Your task to perform on an android device: Go to eBay Image 0: 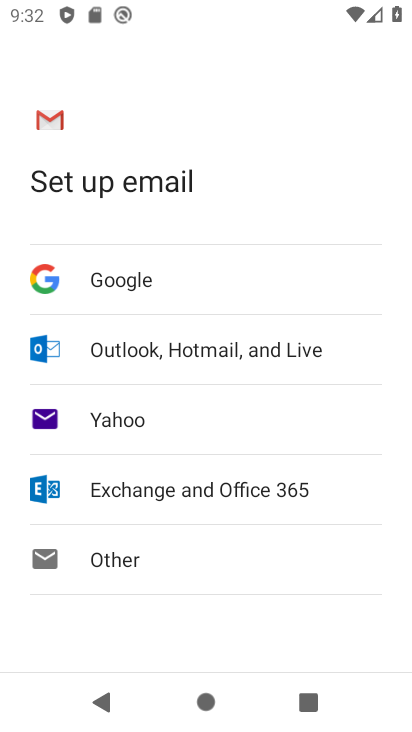
Step 0: press back button
Your task to perform on an android device: Go to eBay Image 1: 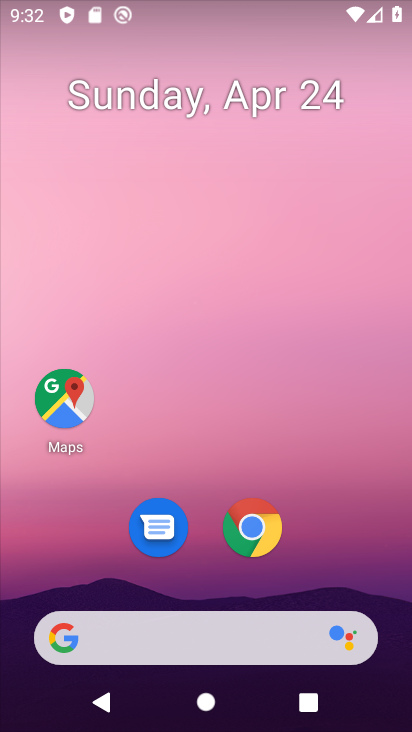
Step 1: click (176, 639)
Your task to perform on an android device: Go to eBay Image 2: 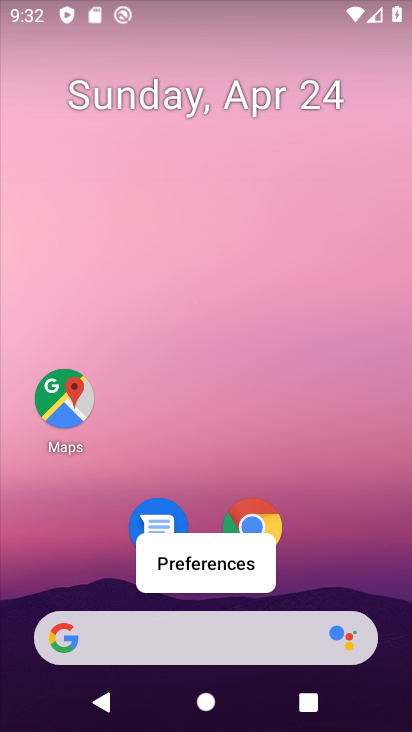
Step 2: click (132, 641)
Your task to perform on an android device: Go to eBay Image 3: 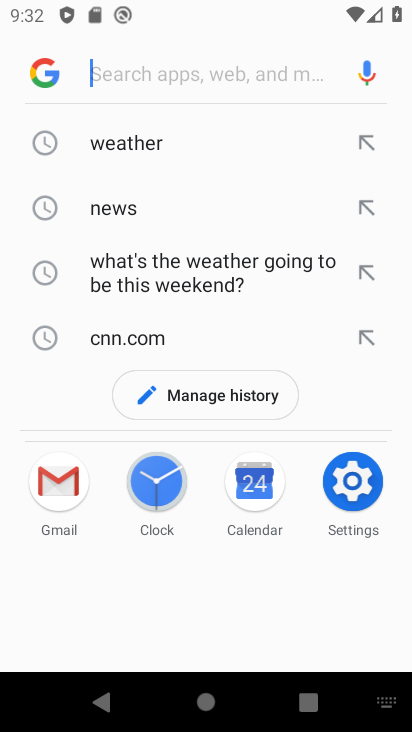
Step 3: type "ebay"
Your task to perform on an android device: Go to eBay Image 4: 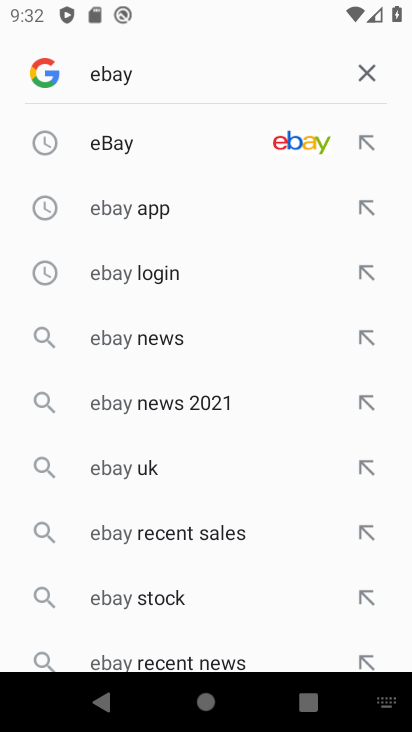
Step 4: click (134, 134)
Your task to perform on an android device: Go to eBay Image 5: 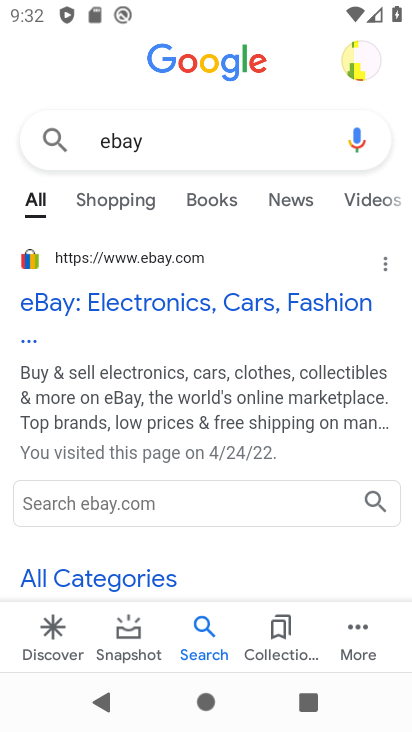
Step 5: click (128, 305)
Your task to perform on an android device: Go to eBay Image 6: 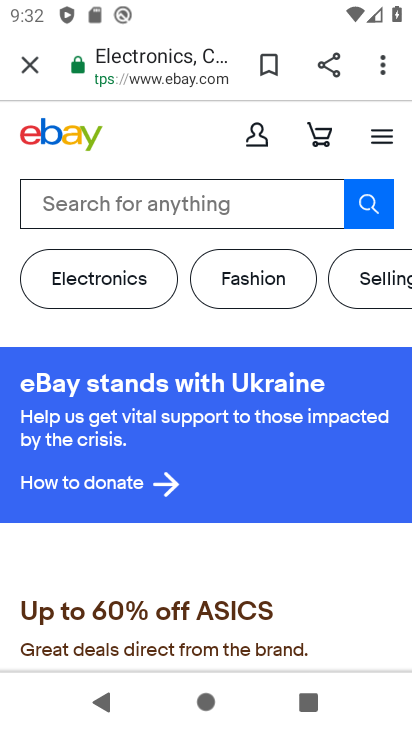
Step 6: task complete